Your task to perform on an android device: Open display settings Image 0: 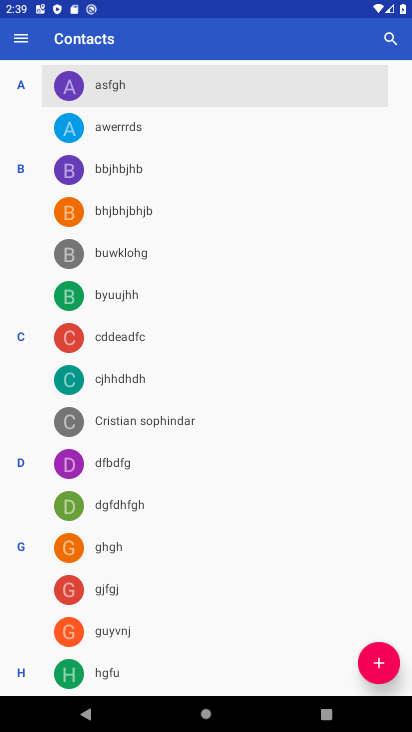
Step 0: press home button
Your task to perform on an android device: Open display settings Image 1: 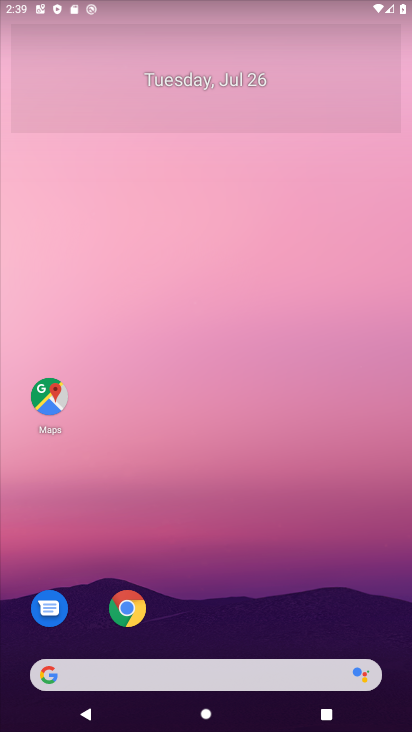
Step 1: drag from (237, 512) to (301, 86)
Your task to perform on an android device: Open display settings Image 2: 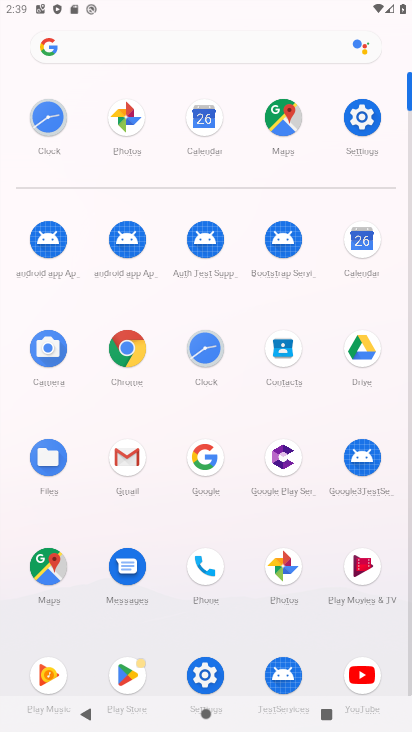
Step 2: click (358, 121)
Your task to perform on an android device: Open display settings Image 3: 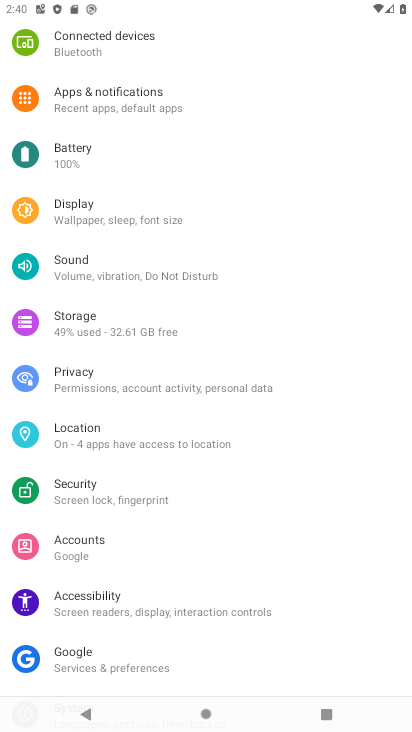
Step 3: click (90, 208)
Your task to perform on an android device: Open display settings Image 4: 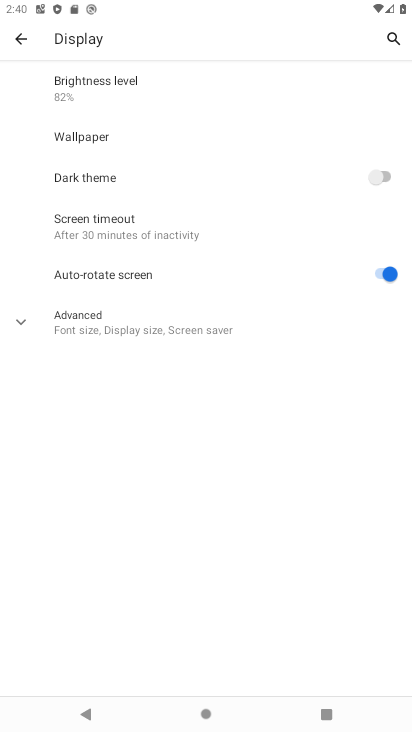
Step 4: task complete